Your task to perform on an android device: turn on wifi Image 0: 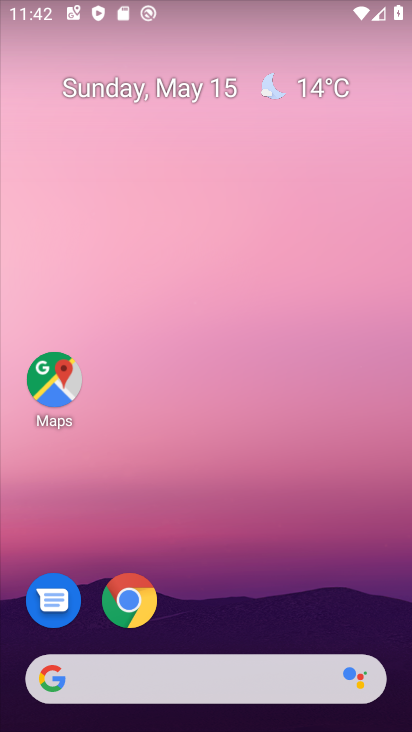
Step 0: drag from (390, 624) to (339, 67)
Your task to perform on an android device: turn on wifi Image 1: 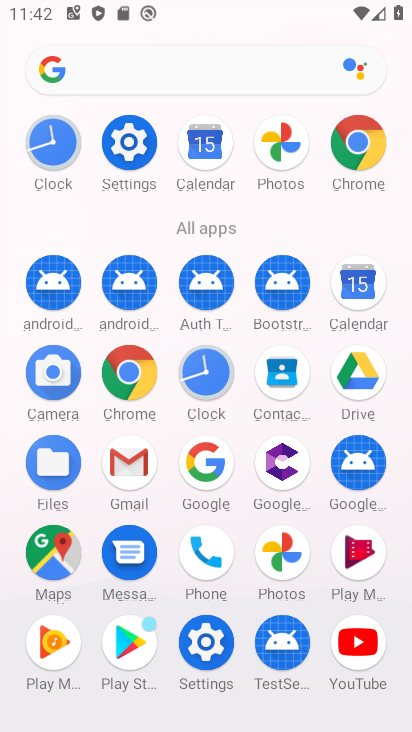
Step 1: click (207, 643)
Your task to perform on an android device: turn on wifi Image 2: 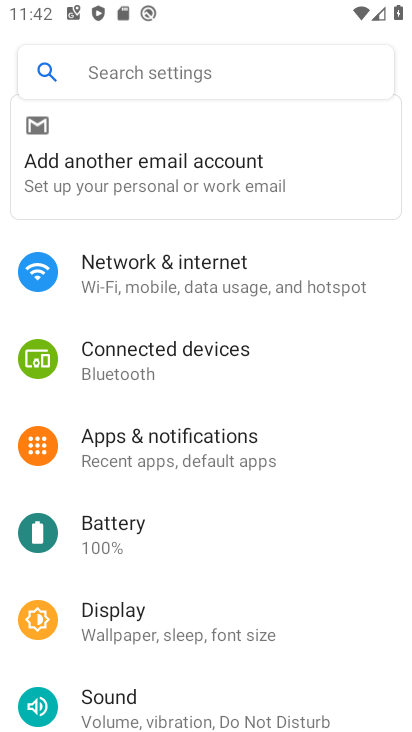
Step 2: click (123, 262)
Your task to perform on an android device: turn on wifi Image 3: 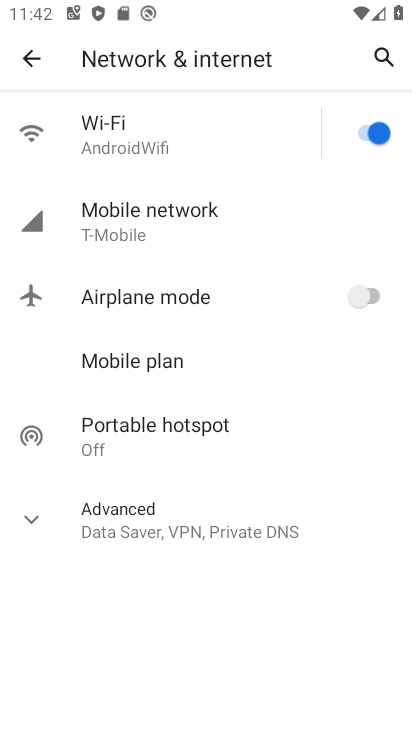
Step 3: task complete